Your task to perform on an android device: toggle priority inbox in the gmail app Image 0: 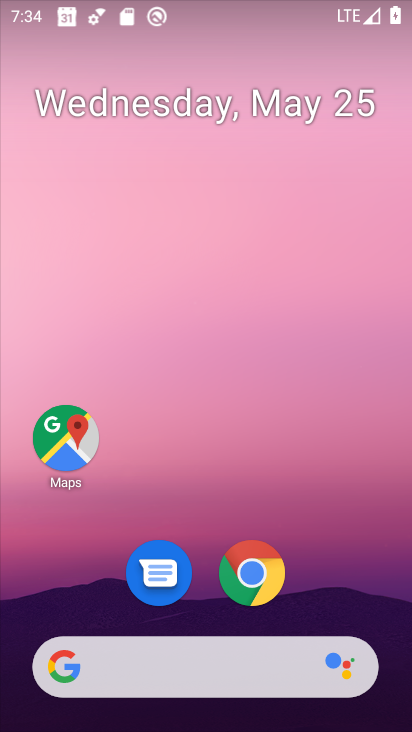
Step 0: drag from (398, 711) to (335, 273)
Your task to perform on an android device: toggle priority inbox in the gmail app Image 1: 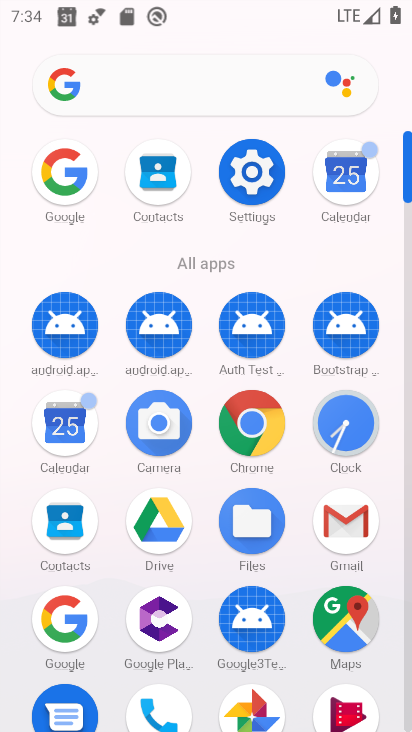
Step 1: click (340, 524)
Your task to perform on an android device: toggle priority inbox in the gmail app Image 2: 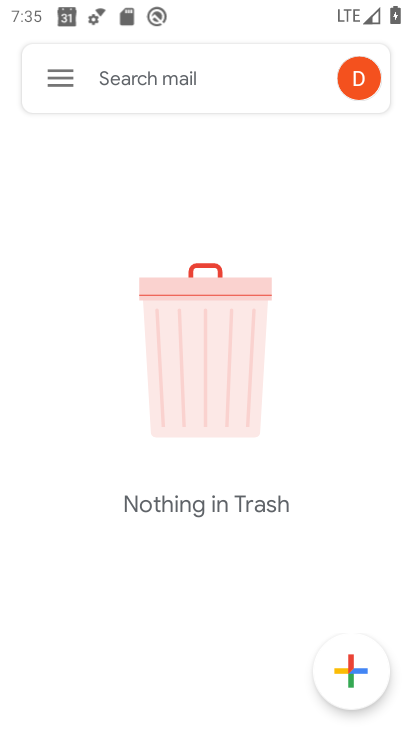
Step 2: click (58, 79)
Your task to perform on an android device: toggle priority inbox in the gmail app Image 3: 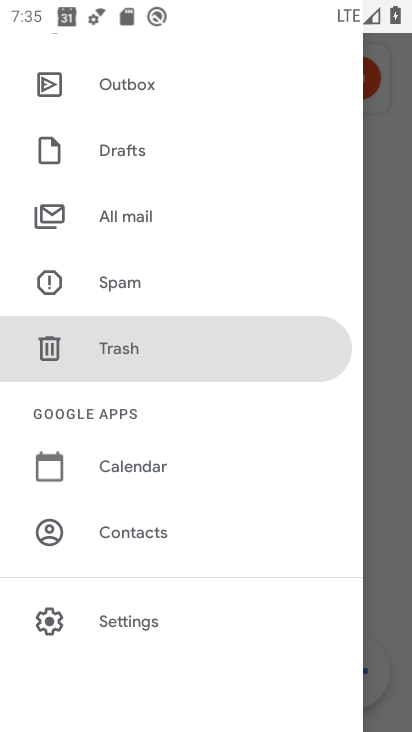
Step 3: click (137, 618)
Your task to perform on an android device: toggle priority inbox in the gmail app Image 4: 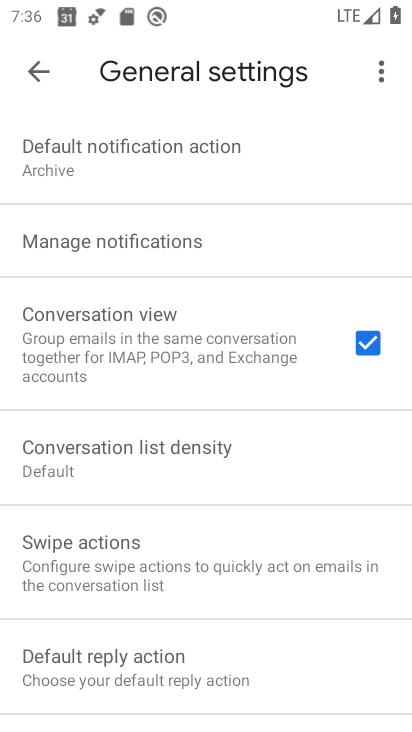
Step 4: drag from (262, 684) to (228, 361)
Your task to perform on an android device: toggle priority inbox in the gmail app Image 5: 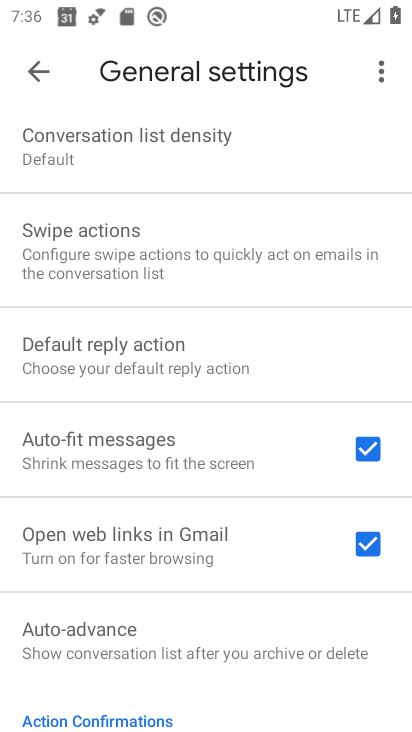
Step 5: drag from (222, 676) to (192, 412)
Your task to perform on an android device: toggle priority inbox in the gmail app Image 6: 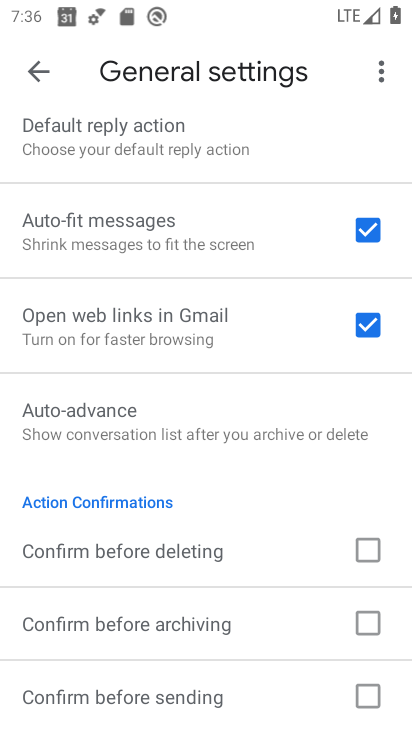
Step 6: click (29, 69)
Your task to perform on an android device: toggle priority inbox in the gmail app Image 7: 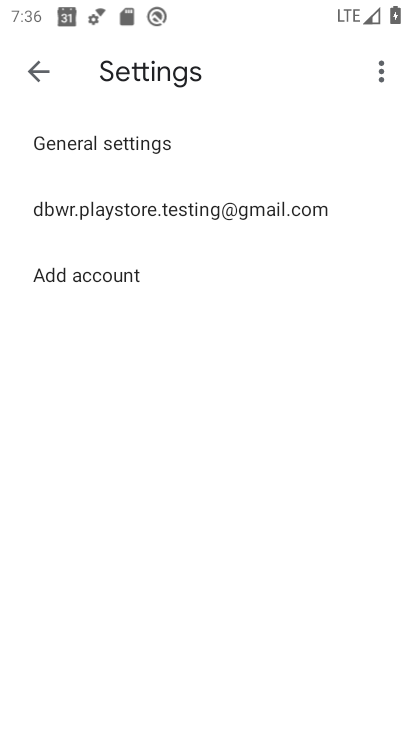
Step 7: click (79, 209)
Your task to perform on an android device: toggle priority inbox in the gmail app Image 8: 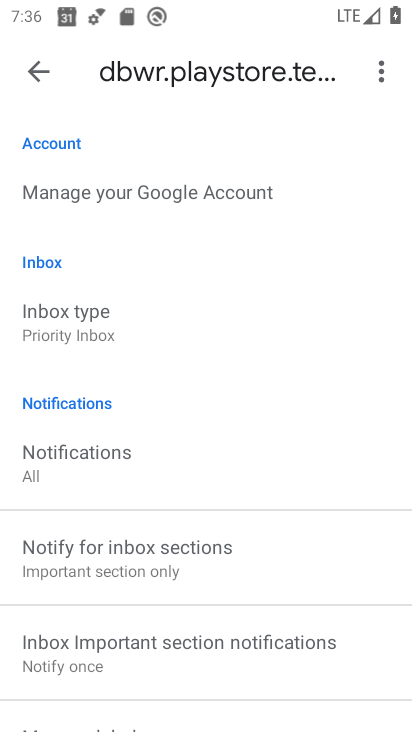
Step 8: click (55, 315)
Your task to perform on an android device: toggle priority inbox in the gmail app Image 9: 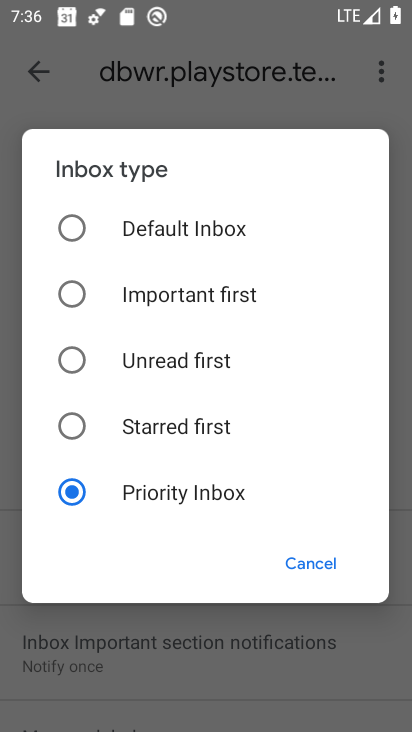
Step 9: click (70, 226)
Your task to perform on an android device: toggle priority inbox in the gmail app Image 10: 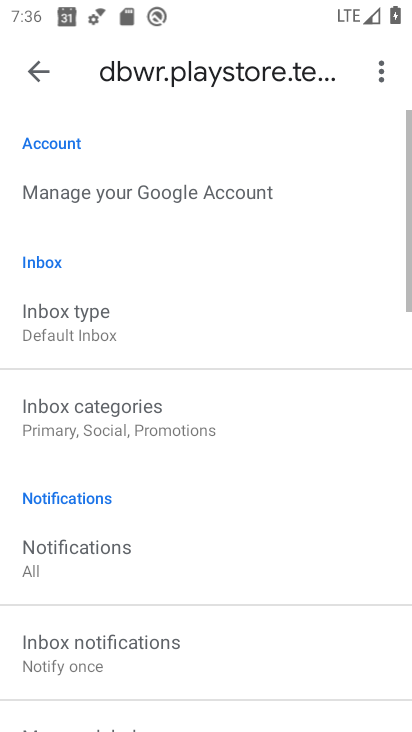
Step 10: task complete